Your task to perform on an android device: Go to ESPN.com Image 0: 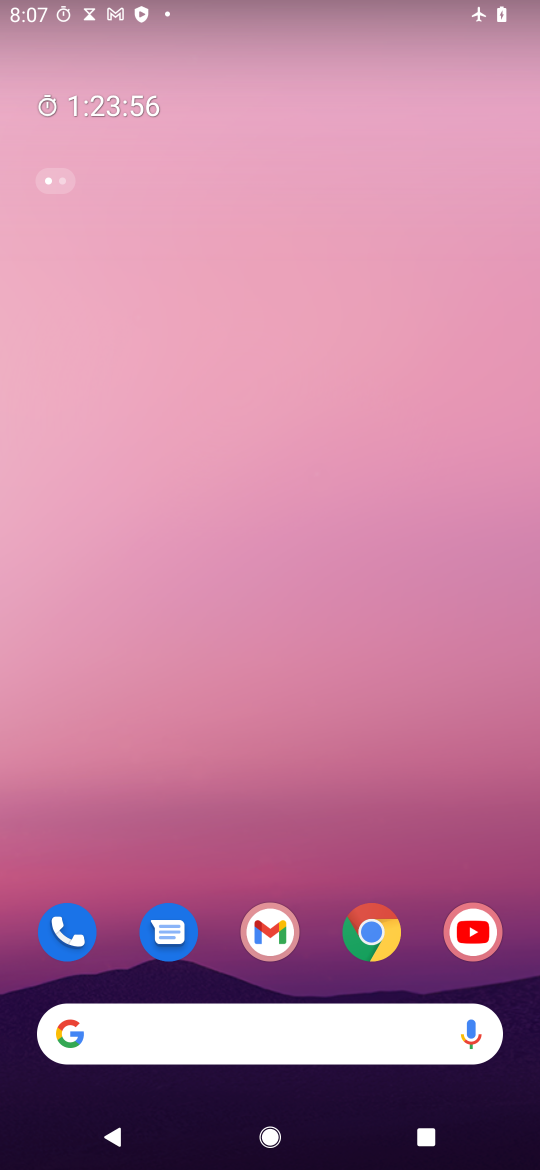
Step 0: click (374, 939)
Your task to perform on an android device: Go to ESPN.com Image 1: 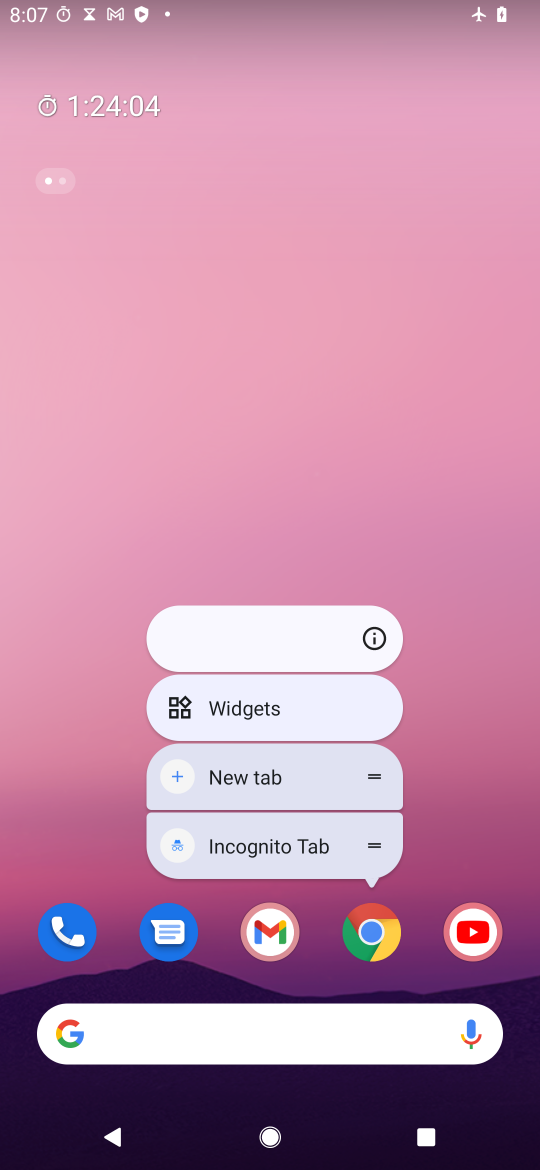
Step 1: click (390, 937)
Your task to perform on an android device: Go to ESPN.com Image 2: 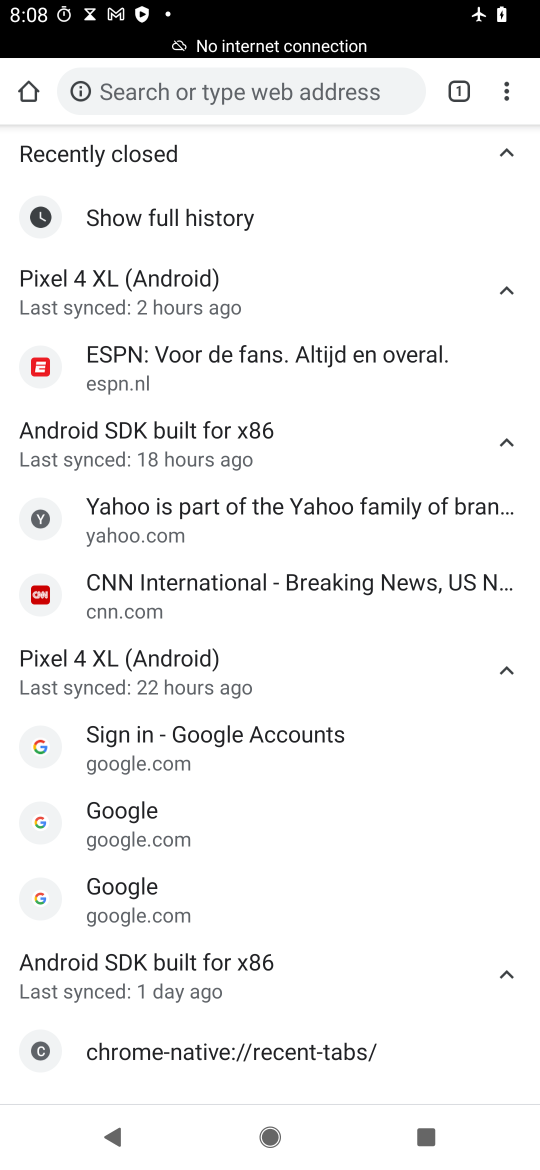
Step 2: click (200, 82)
Your task to perform on an android device: Go to ESPN.com Image 3: 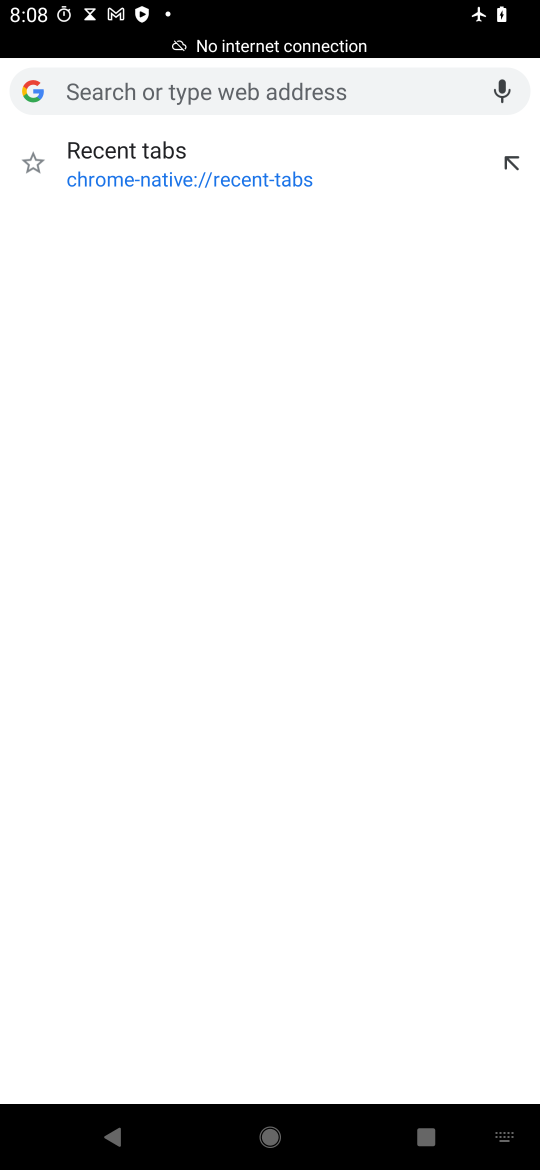
Step 3: type "ESPN.com"
Your task to perform on an android device: Go to ESPN.com Image 4: 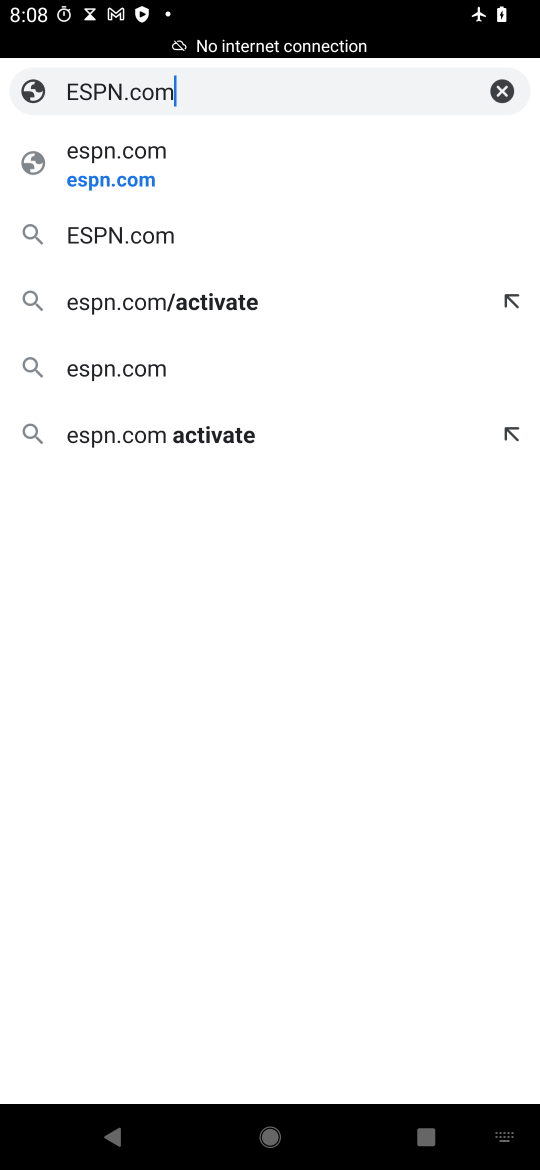
Step 4: click (104, 183)
Your task to perform on an android device: Go to ESPN.com Image 5: 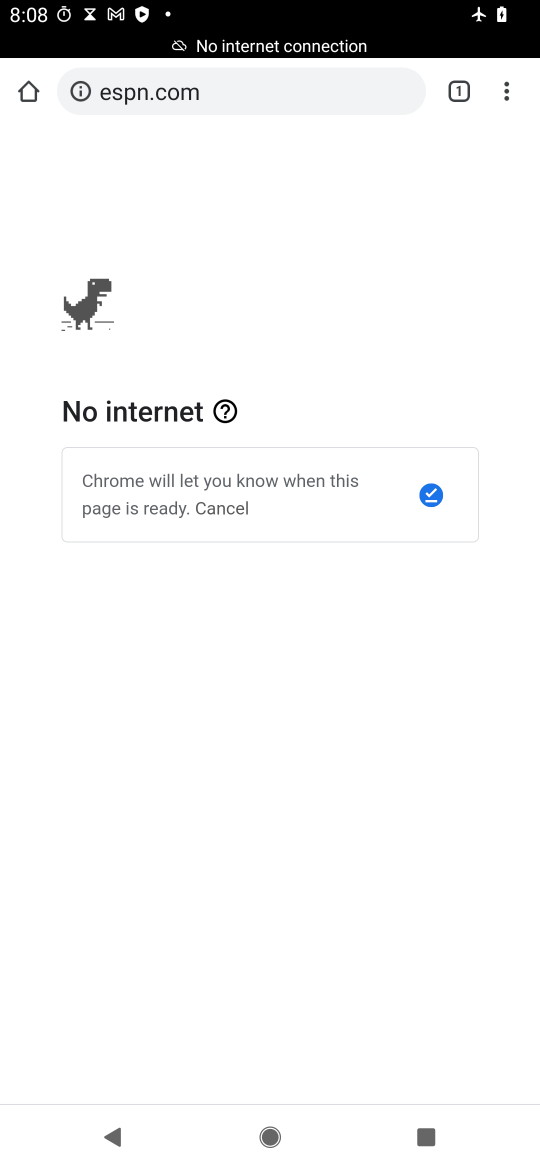
Step 5: task complete